Your task to perform on an android device: allow notifications from all sites in the chrome app Image 0: 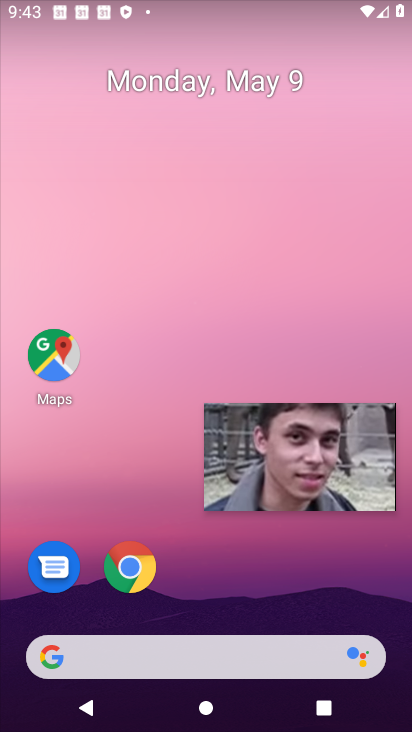
Step 0: drag from (337, 479) to (161, 722)
Your task to perform on an android device: allow notifications from all sites in the chrome app Image 1: 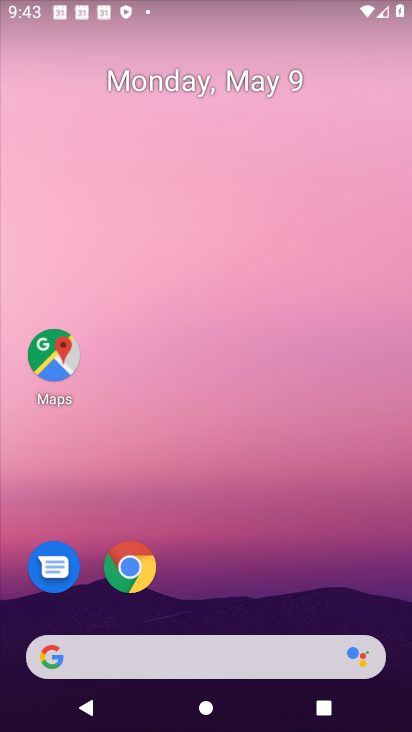
Step 1: click (125, 578)
Your task to perform on an android device: allow notifications from all sites in the chrome app Image 2: 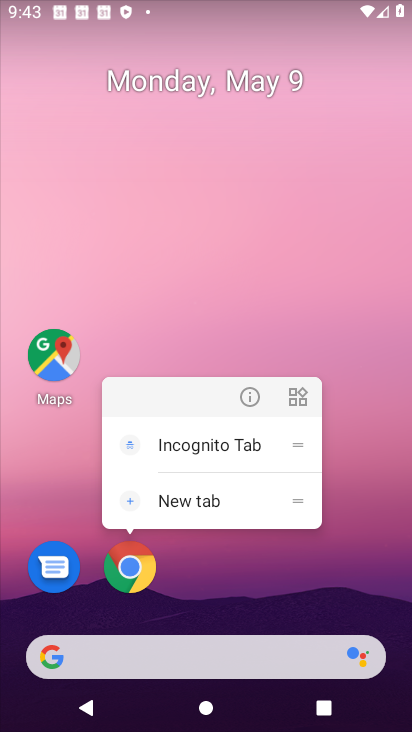
Step 2: click (125, 578)
Your task to perform on an android device: allow notifications from all sites in the chrome app Image 3: 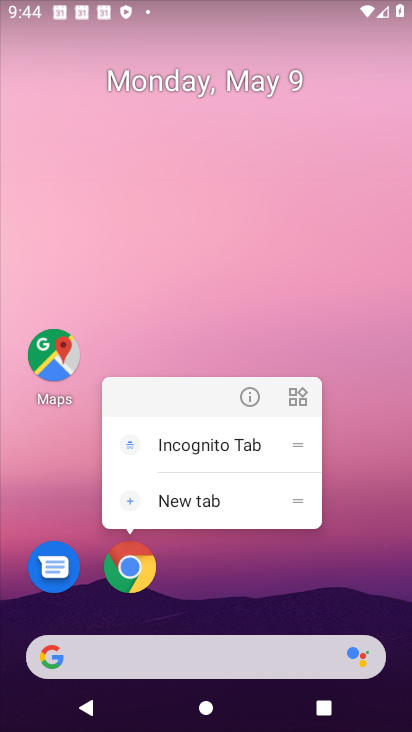
Step 3: click (132, 575)
Your task to perform on an android device: allow notifications from all sites in the chrome app Image 4: 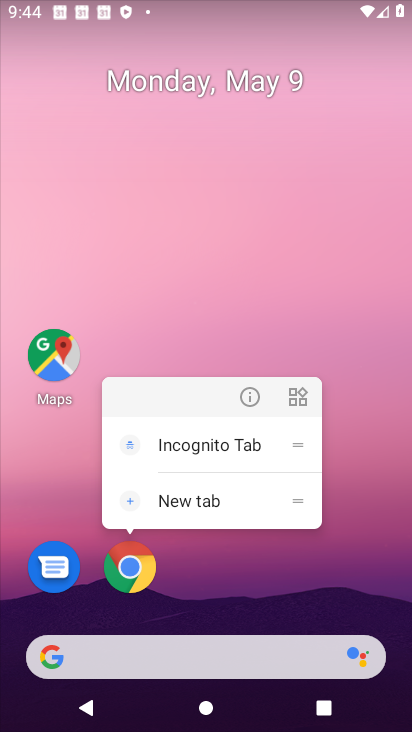
Step 4: click (132, 575)
Your task to perform on an android device: allow notifications from all sites in the chrome app Image 5: 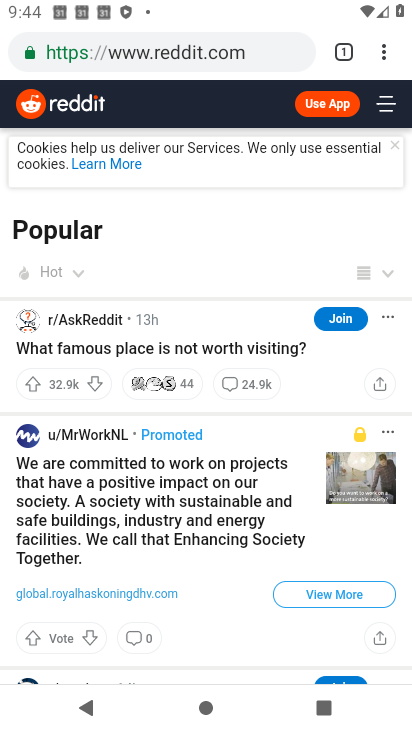
Step 5: click (389, 61)
Your task to perform on an android device: allow notifications from all sites in the chrome app Image 6: 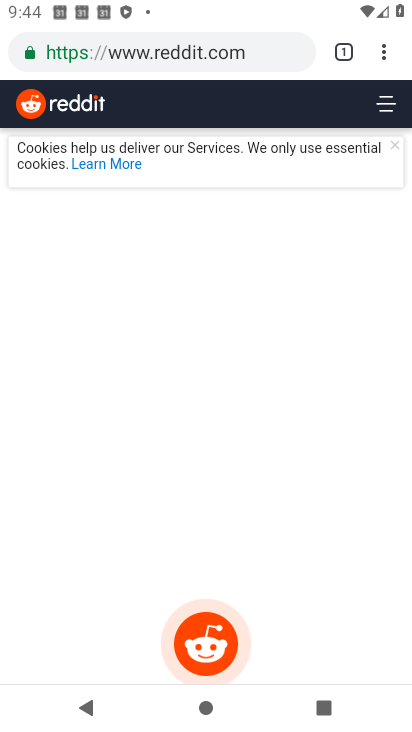
Step 6: drag from (376, 59) to (223, 598)
Your task to perform on an android device: allow notifications from all sites in the chrome app Image 7: 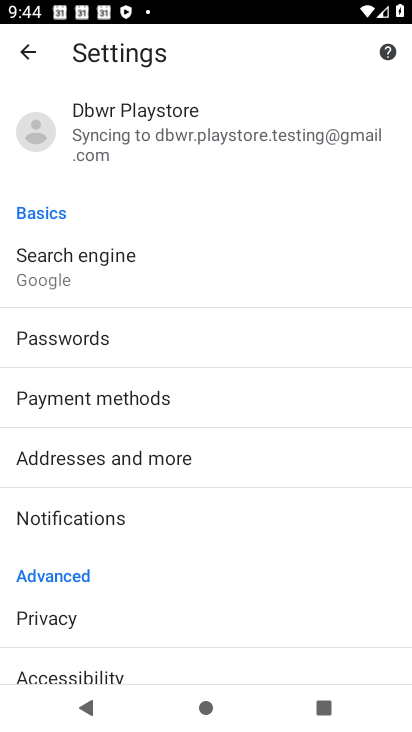
Step 7: drag from (146, 629) to (79, 327)
Your task to perform on an android device: allow notifications from all sites in the chrome app Image 8: 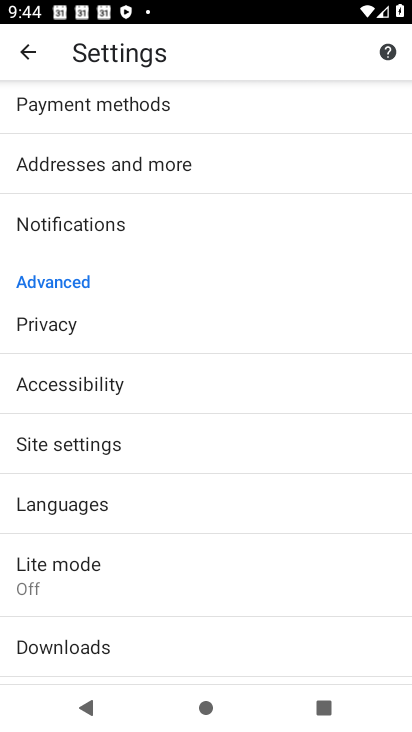
Step 8: click (59, 453)
Your task to perform on an android device: allow notifications from all sites in the chrome app Image 9: 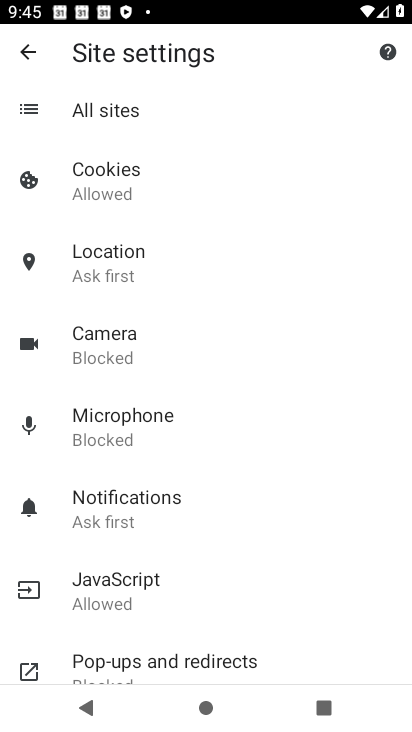
Step 9: click (145, 516)
Your task to perform on an android device: allow notifications from all sites in the chrome app Image 10: 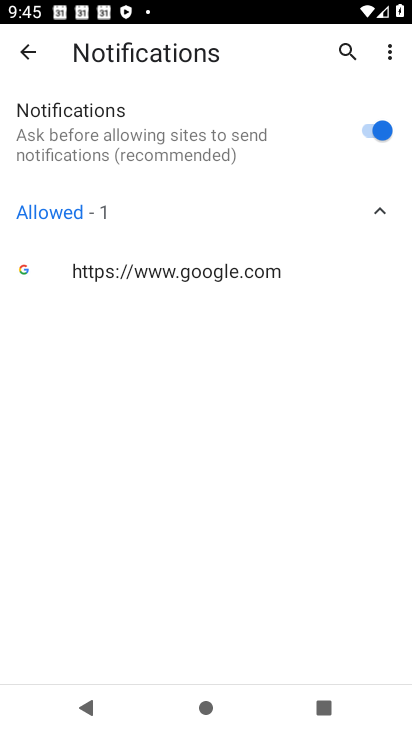
Step 10: task complete